Your task to perform on an android device: Open location settings Image 0: 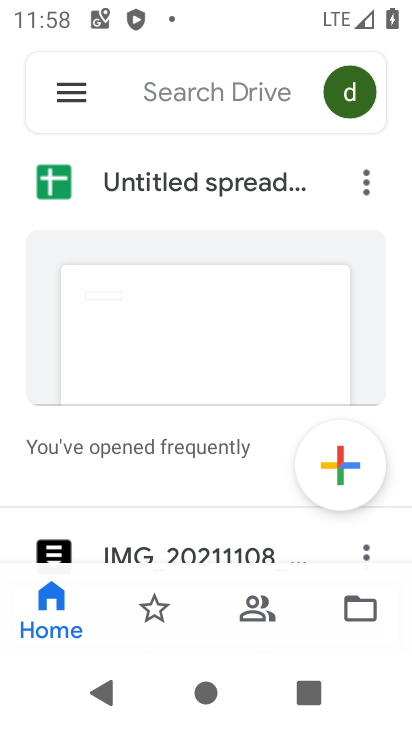
Step 0: press back button
Your task to perform on an android device: Open location settings Image 1: 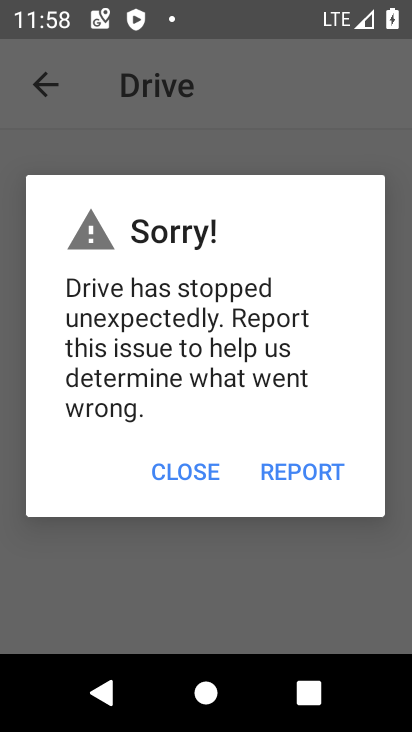
Step 1: press back button
Your task to perform on an android device: Open location settings Image 2: 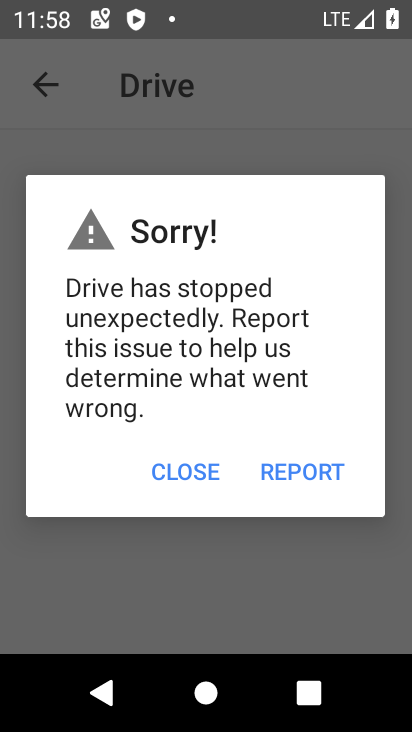
Step 2: press home button
Your task to perform on an android device: Open location settings Image 3: 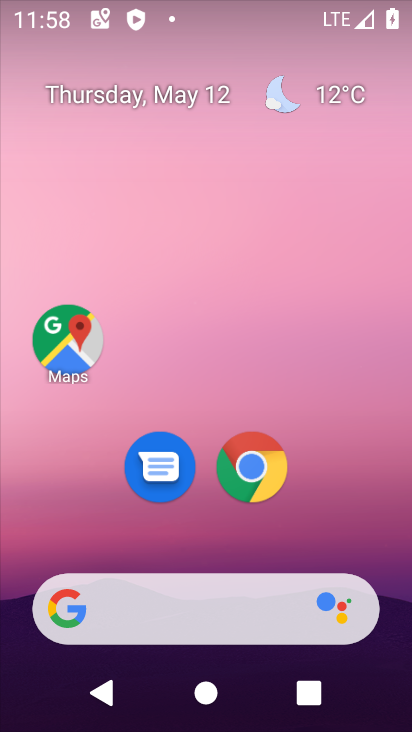
Step 3: drag from (342, 506) to (267, 26)
Your task to perform on an android device: Open location settings Image 4: 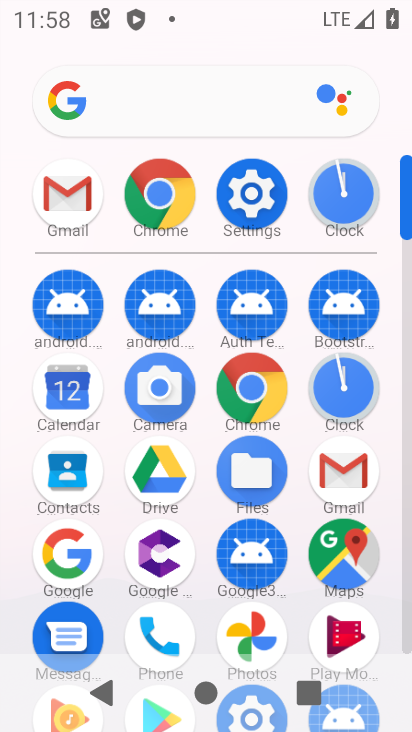
Step 4: drag from (5, 567) to (0, 302)
Your task to perform on an android device: Open location settings Image 5: 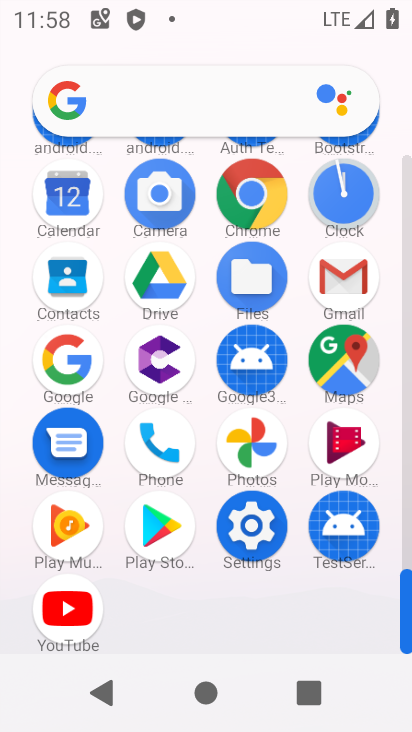
Step 5: click (248, 523)
Your task to perform on an android device: Open location settings Image 6: 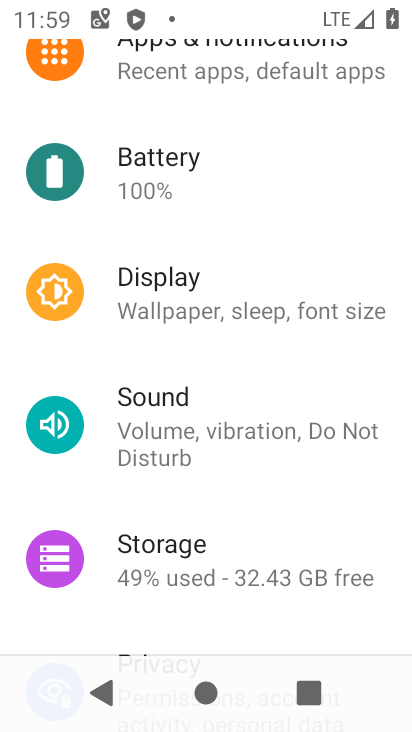
Step 6: drag from (276, 470) to (276, 189)
Your task to perform on an android device: Open location settings Image 7: 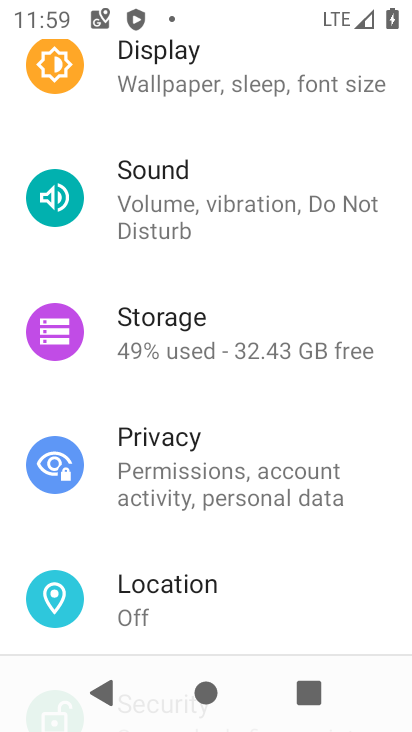
Step 7: click (162, 580)
Your task to perform on an android device: Open location settings Image 8: 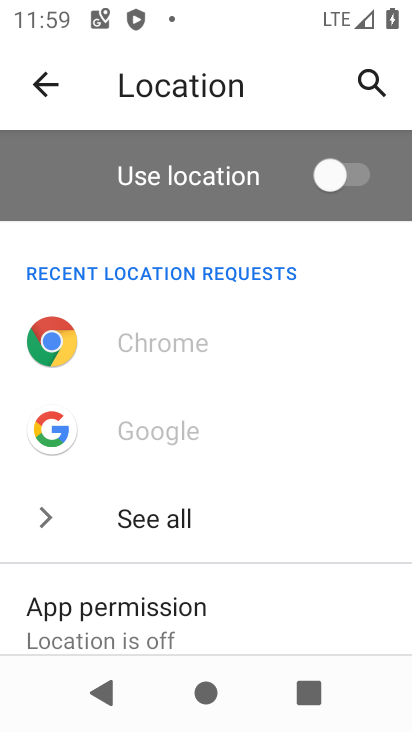
Step 8: drag from (189, 575) to (198, 280)
Your task to perform on an android device: Open location settings Image 9: 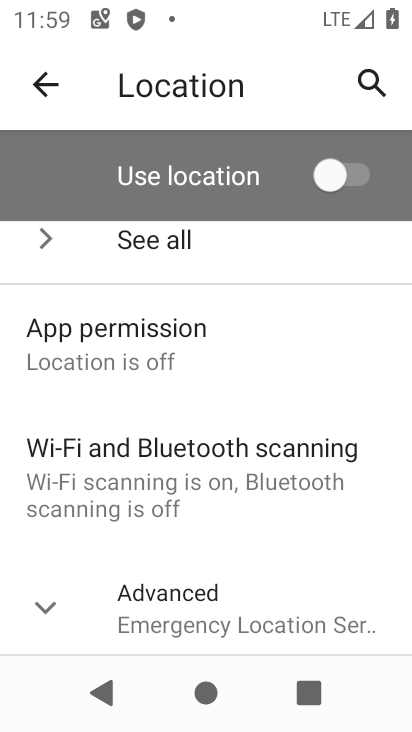
Step 9: click (62, 595)
Your task to perform on an android device: Open location settings Image 10: 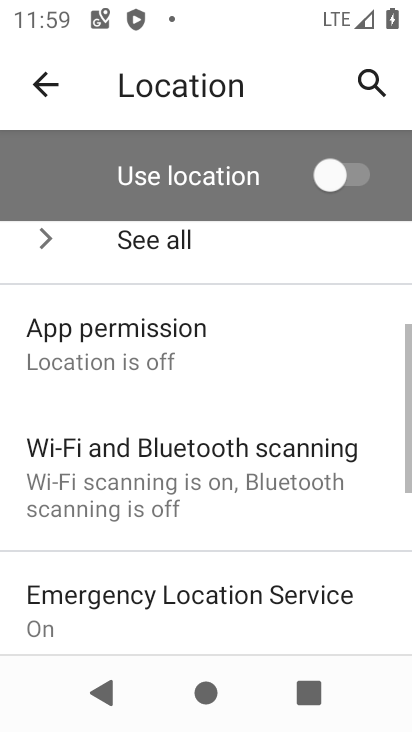
Step 10: task complete